Your task to perform on an android device: Open the map Image 0: 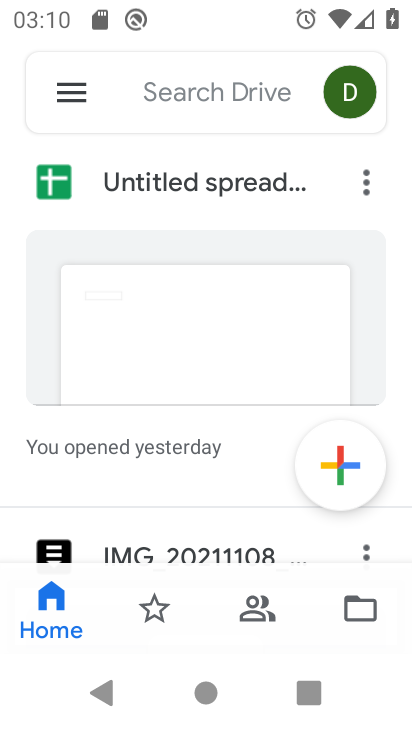
Step 0: press home button
Your task to perform on an android device: Open the map Image 1: 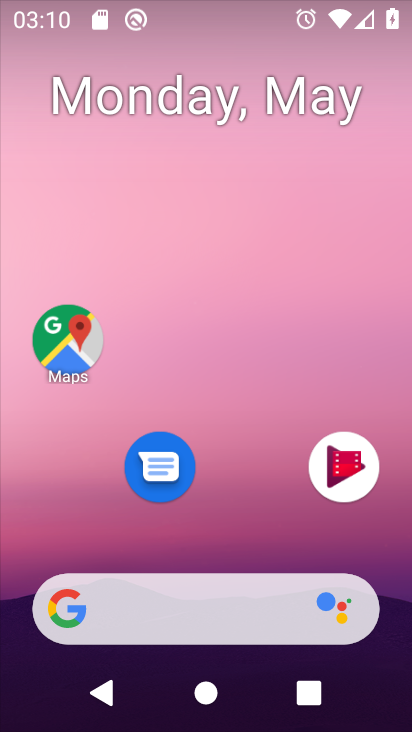
Step 1: click (56, 325)
Your task to perform on an android device: Open the map Image 2: 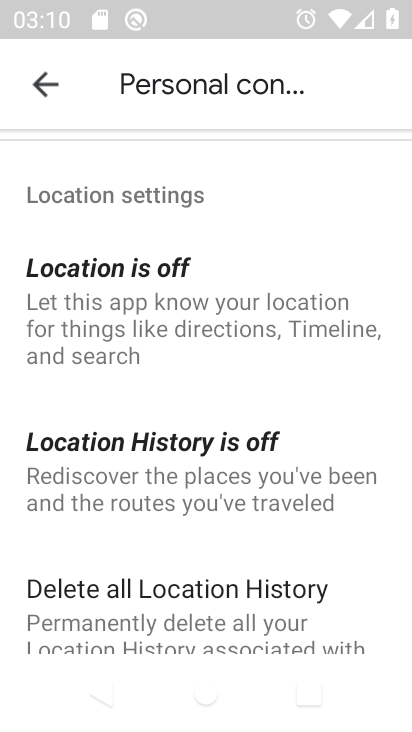
Step 2: click (30, 85)
Your task to perform on an android device: Open the map Image 3: 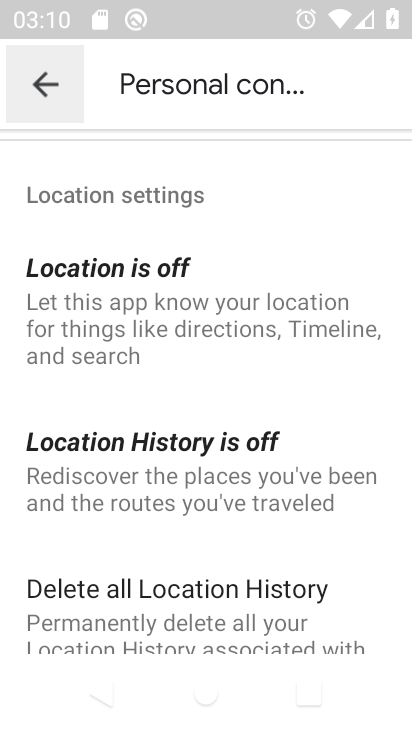
Step 3: click (31, 85)
Your task to perform on an android device: Open the map Image 4: 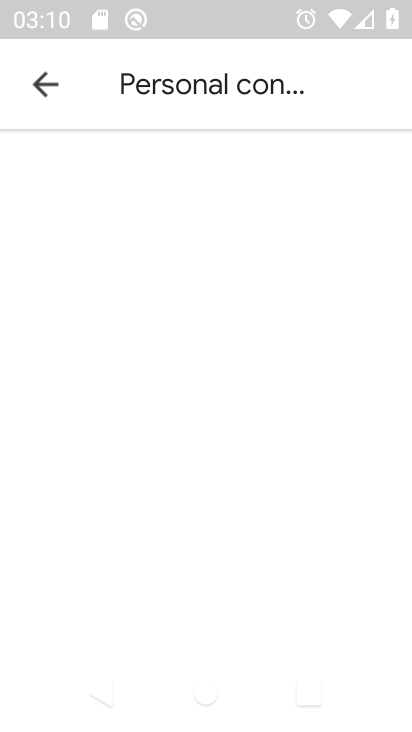
Step 4: click (31, 85)
Your task to perform on an android device: Open the map Image 5: 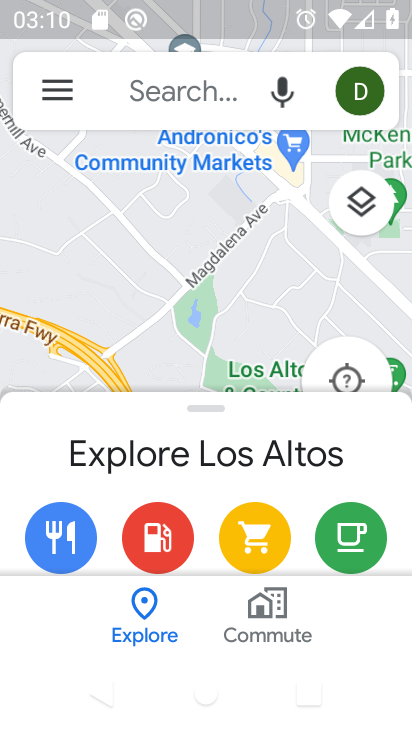
Step 5: task complete